Your task to perform on an android device: Open display settings Image 0: 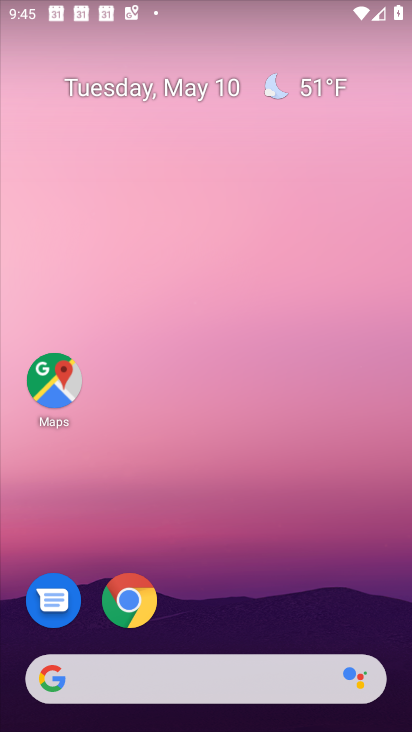
Step 0: drag from (216, 636) to (192, 162)
Your task to perform on an android device: Open display settings Image 1: 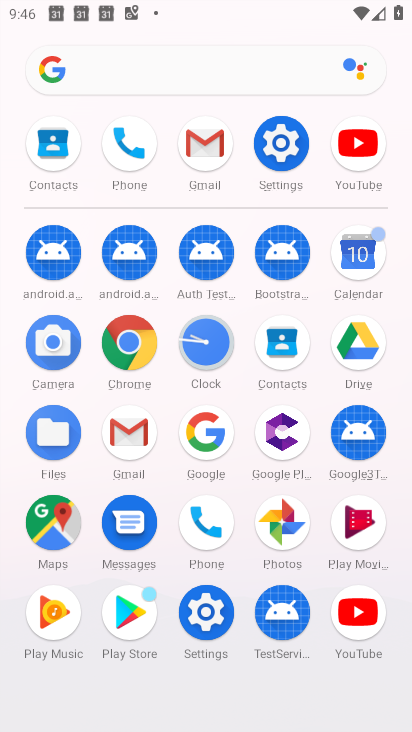
Step 1: click (213, 611)
Your task to perform on an android device: Open display settings Image 2: 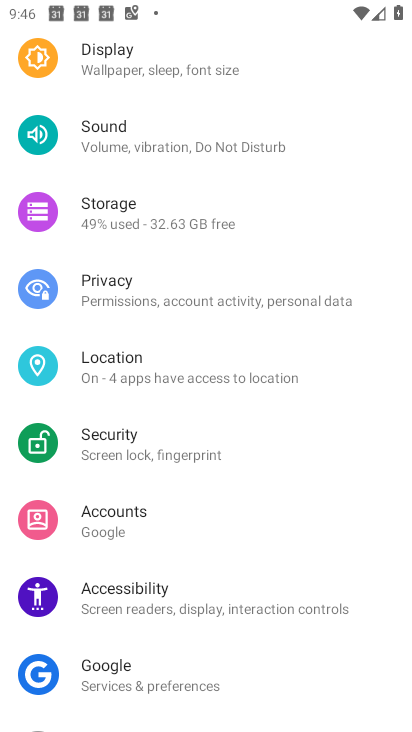
Step 2: click (120, 57)
Your task to perform on an android device: Open display settings Image 3: 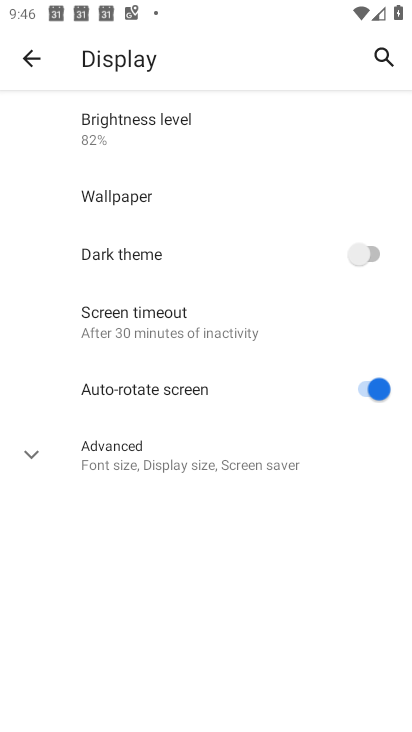
Step 3: task complete